Your task to perform on an android device: Open Yahoo.com Image 0: 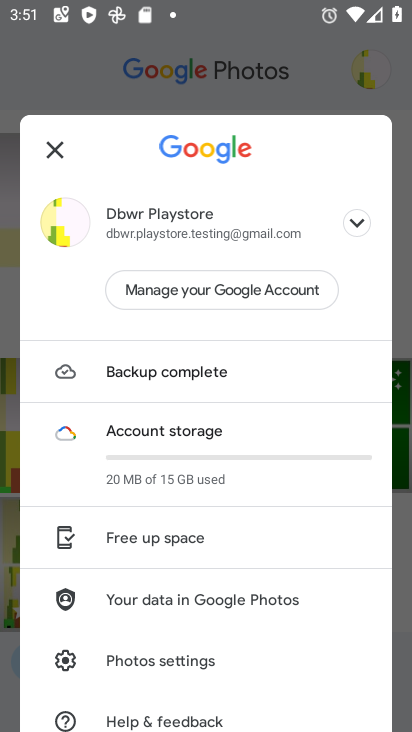
Step 0: press home button
Your task to perform on an android device: Open Yahoo.com Image 1: 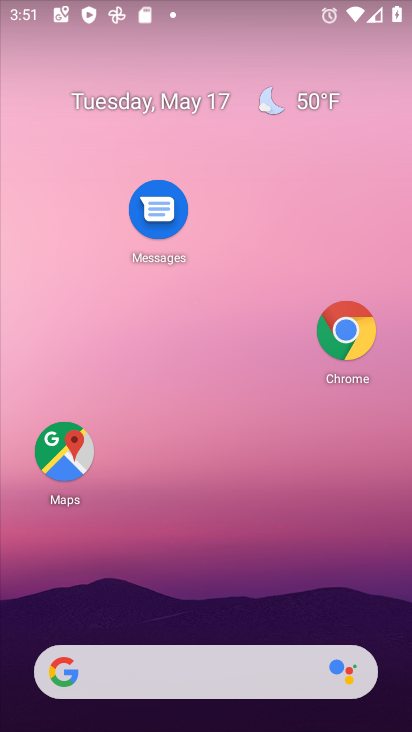
Step 1: click (349, 329)
Your task to perform on an android device: Open Yahoo.com Image 2: 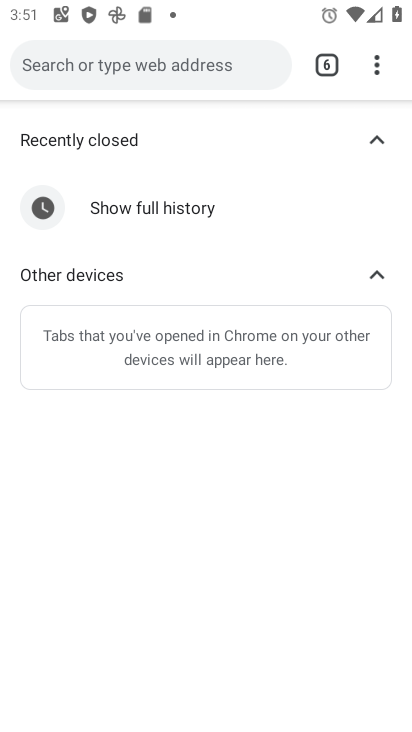
Step 2: click (221, 65)
Your task to perform on an android device: Open Yahoo.com Image 3: 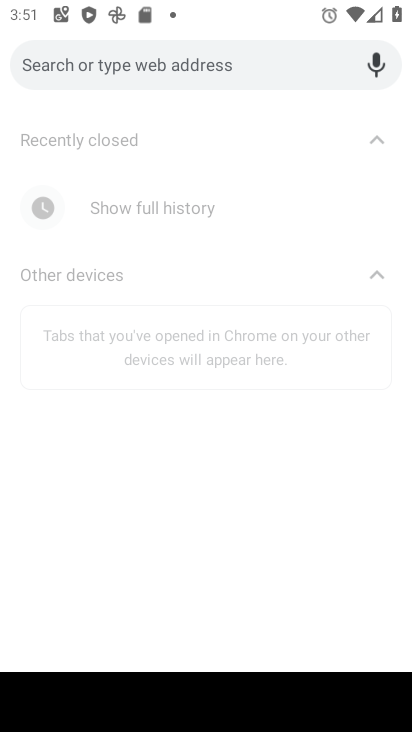
Step 3: type "yahoo.com"
Your task to perform on an android device: Open Yahoo.com Image 4: 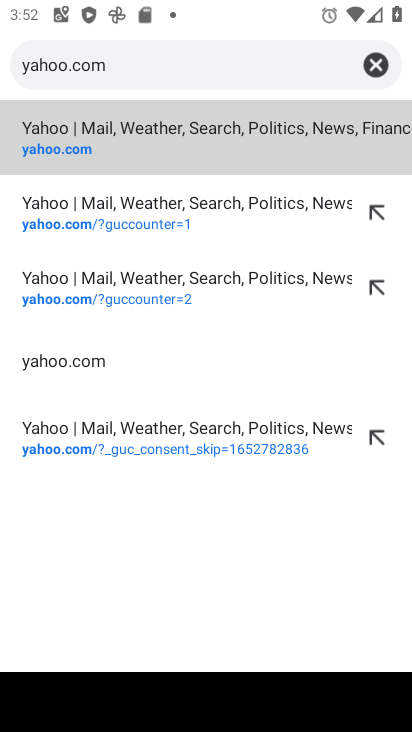
Step 4: click (307, 151)
Your task to perform on an android device: Open Yahoo.com Image 5: 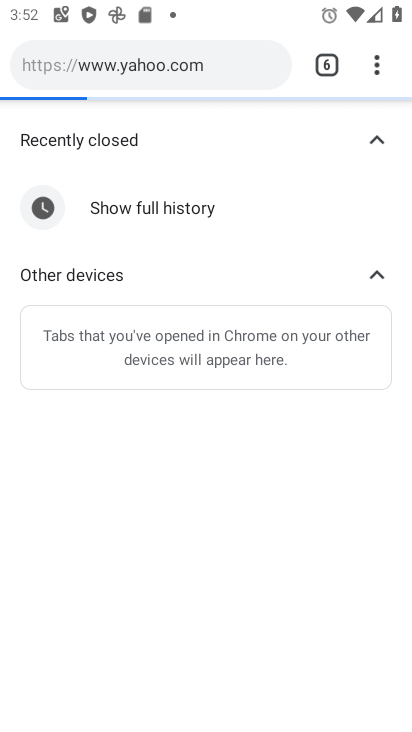
Step 5: task complete